Your task to perform on an android device: Go to battery settings Image 0: 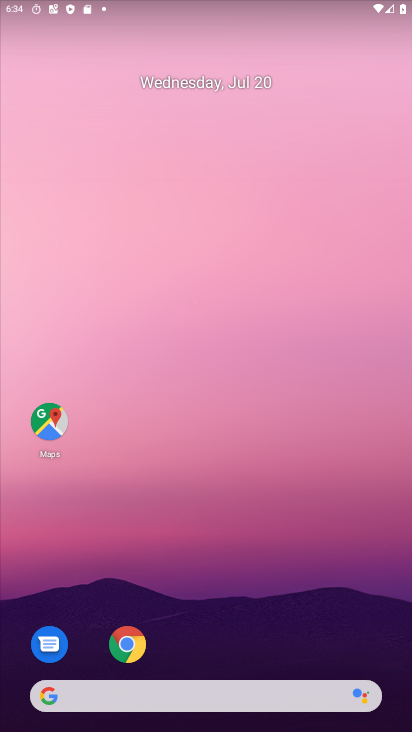
Step 0: press home button
Your task to perform on an android device: Go to battery settings Image 1: 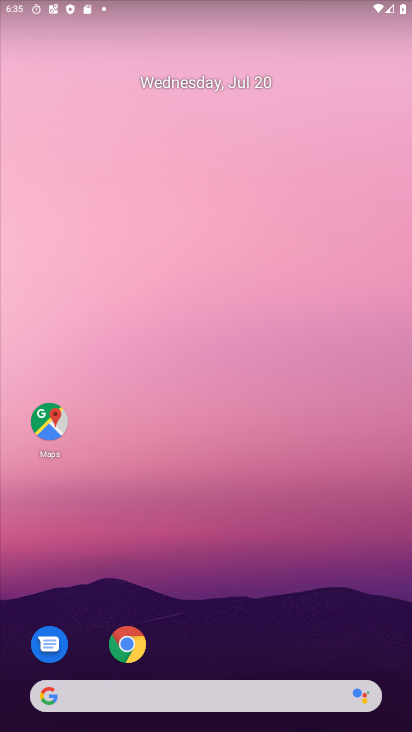
Step 1: drag from (291, 665) to (227, 176)
Your task to perform on an android device: Go to battery settings Image 2: 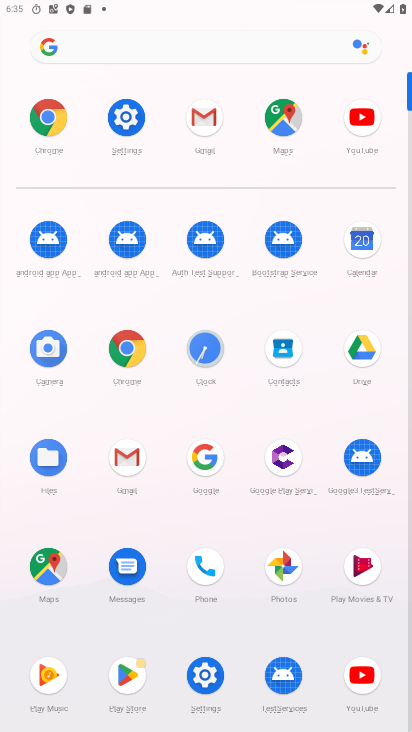
Step 2: click (131, 132)
Your task to perform on an android device: Go to battery settings Image 3: 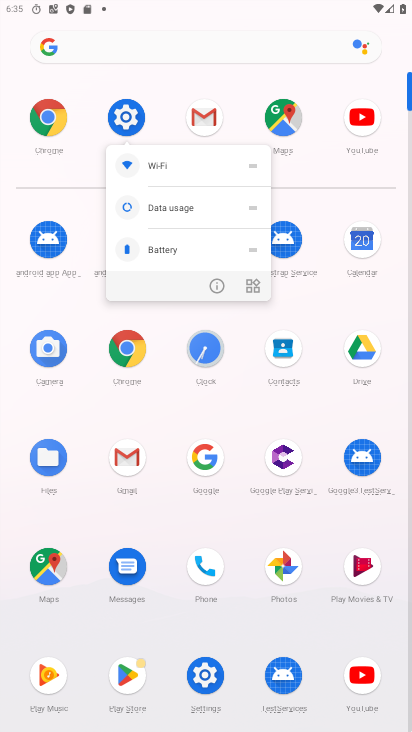
Step 3: click (124, 110)
Your task to perform on an android device: Go to battery settings Image 4: 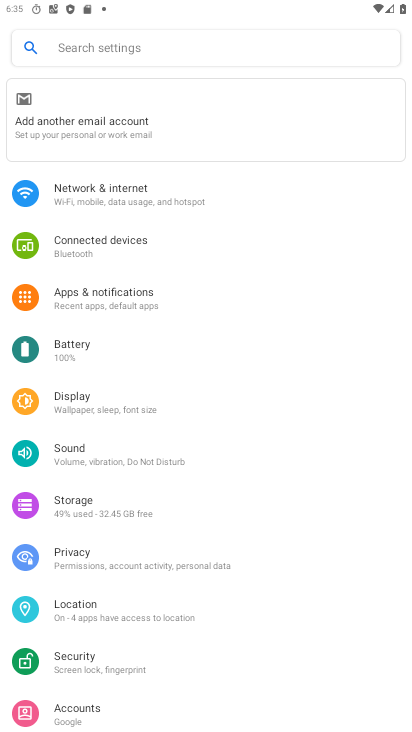
Step 4: click (61, 352)
Your task to perform on an android device: Go to battery settings Image 5: 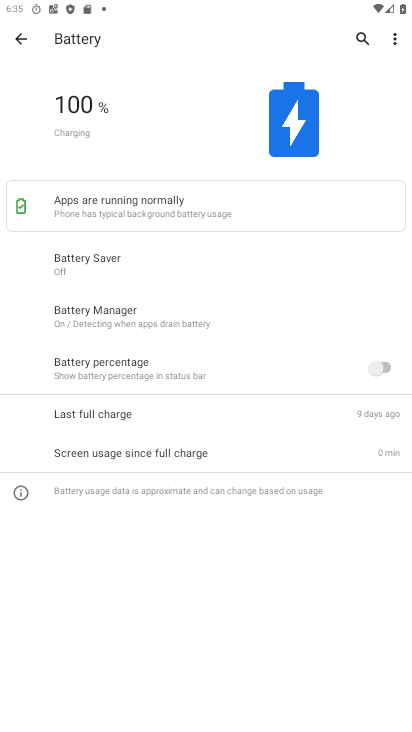
Step 5: task complete